Your task to perform on an android device: View the shopping cart on walmart.com. Image 0: 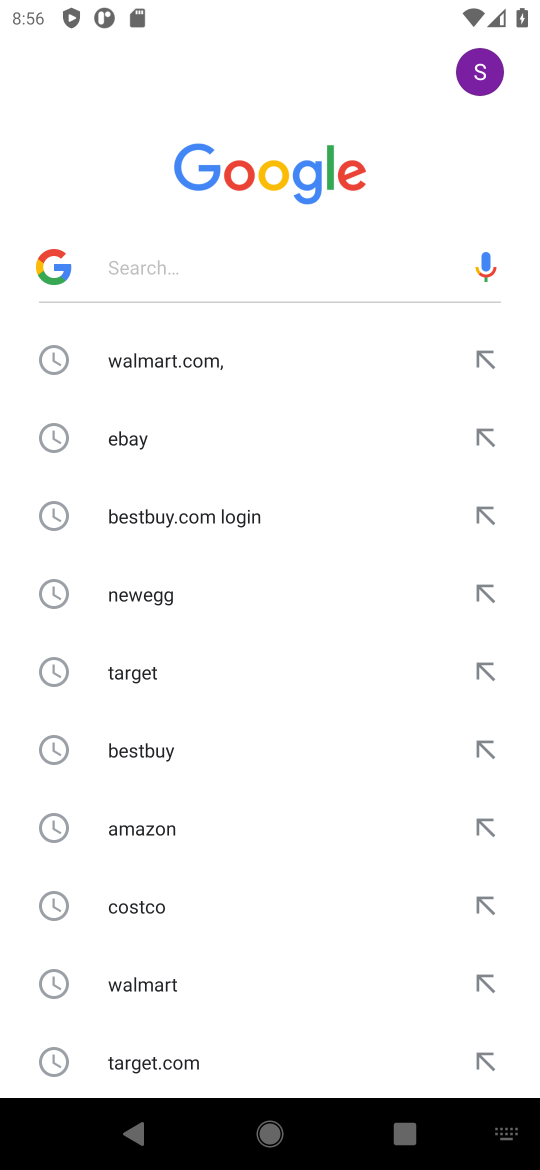
Step 0: type "walmart.com"
Your task to perform on an android device: View the shopping cart on walmart.com. Image 1: 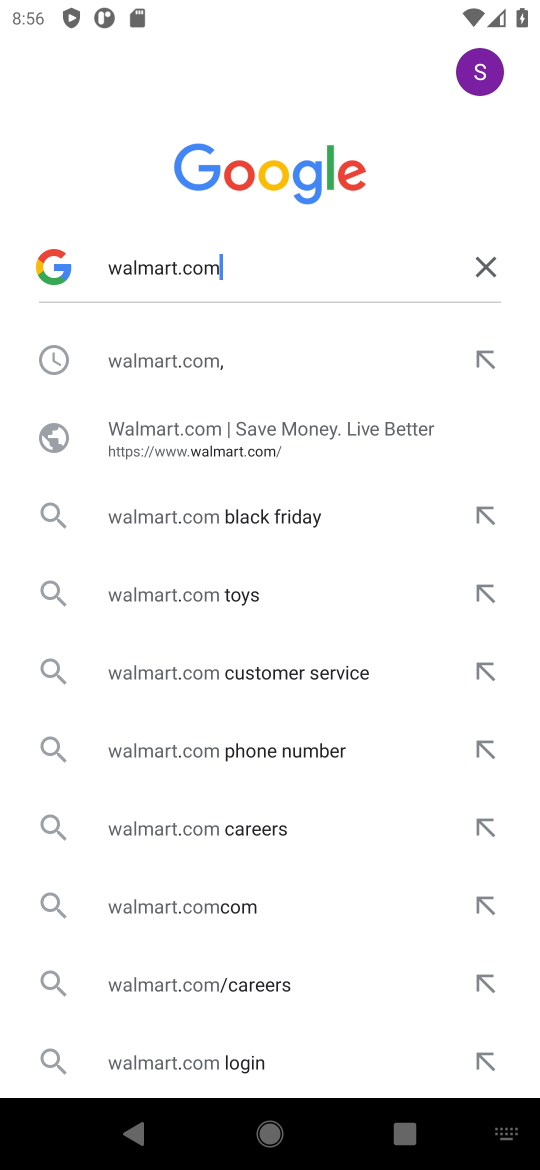
Step 1: press enter
Your task to perform on an android device: View the shopping cart on walmart.com. Image 2: 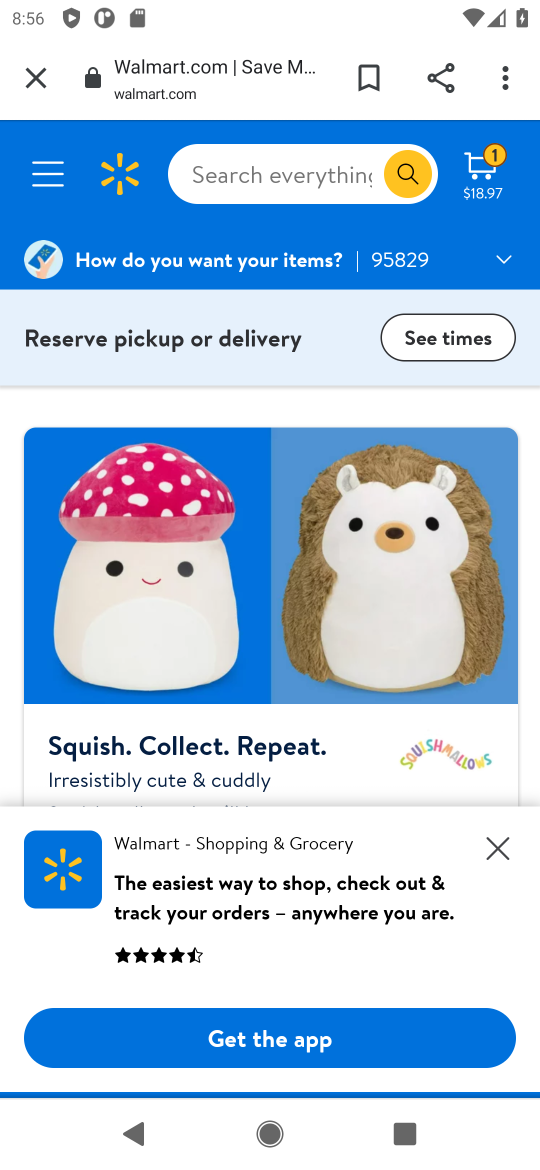
Step 2: click (270, 187)
Your task to perform on an android device: View the shopping cart on walmart.com. Image 3: 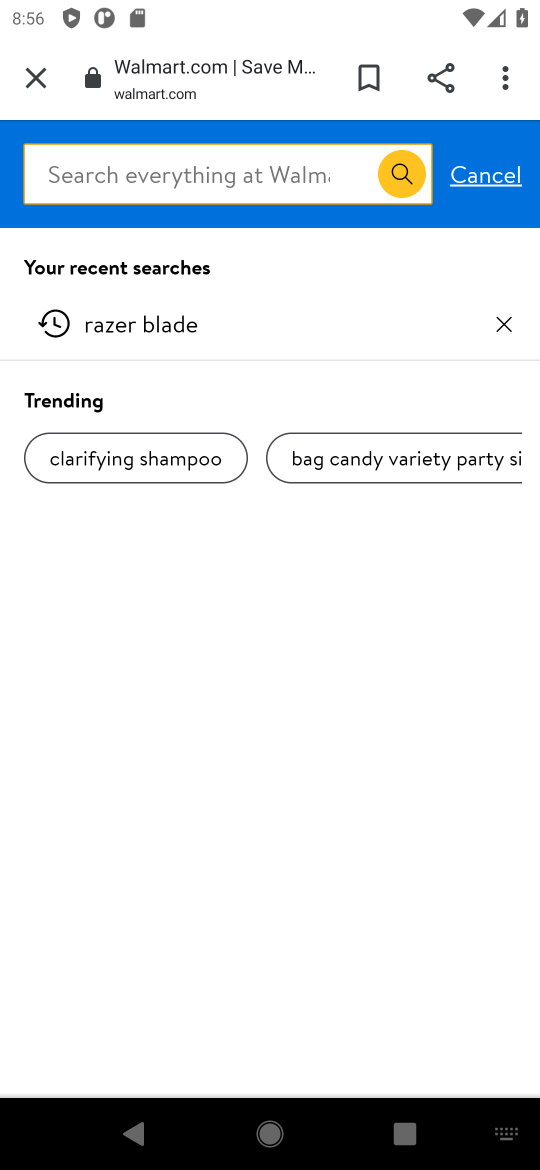
Step 3: click (481, 183)
Your task to perform on an android device: View the shopping cart on walmart.com. Image 4: 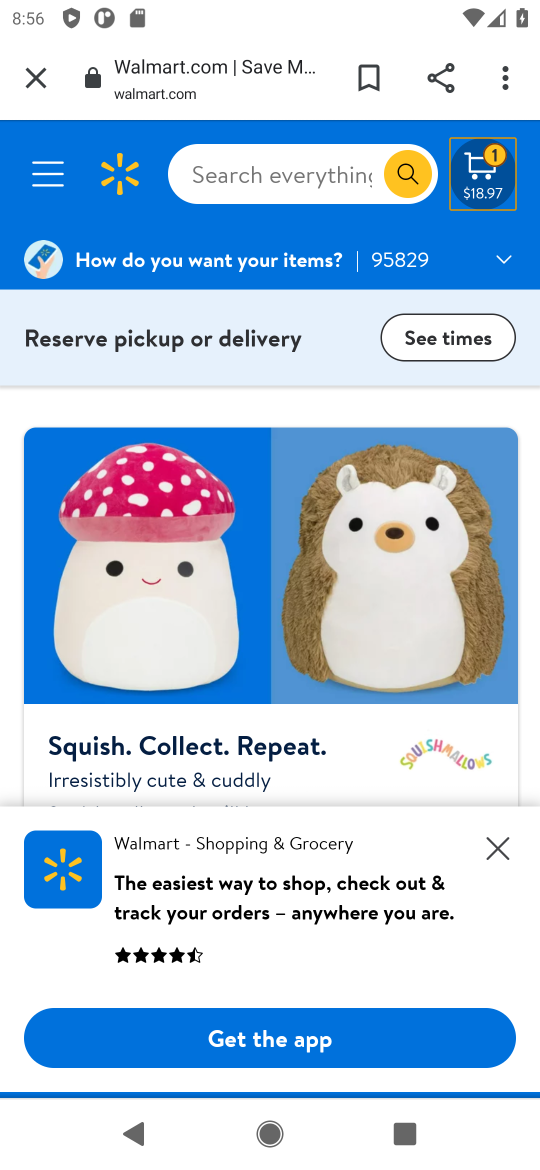
Step 4: click (481, 183)
Your task to perform on an android device: View the shopping cart on walmart.com. Image 5: 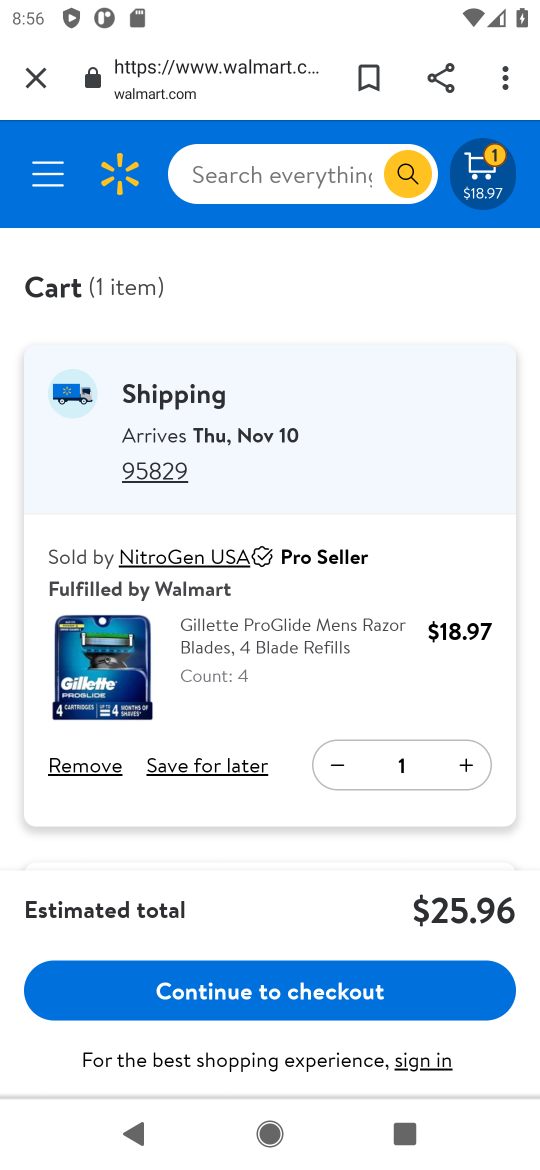
Step 5: task complete